Your task to perform on an android device: Do I have any events tomorrow? Image 0: 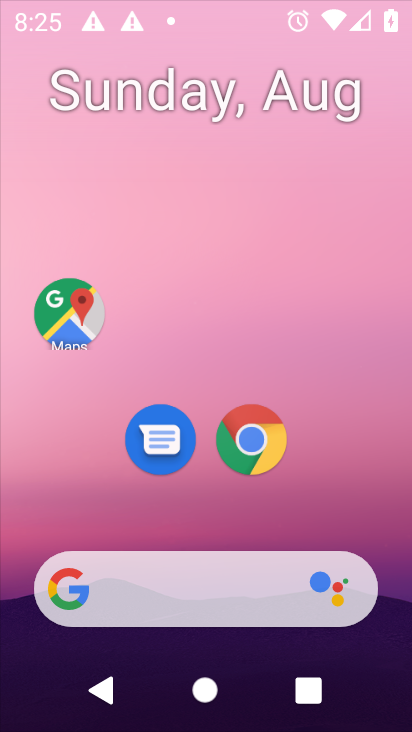
Step 0: press home button
Your task to perform on an android device: Do I have any events tomorrow? Image 1: 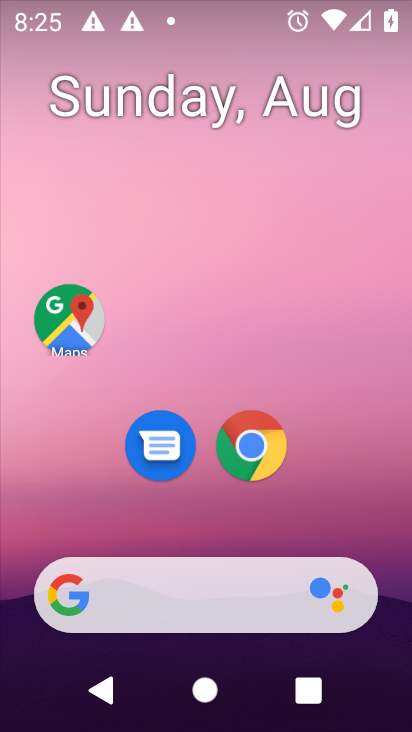
Step 1: drag from (205, 537) to (209, 113)
Your task to perform on an android device: Do I have any events tomorrow? Image 2: 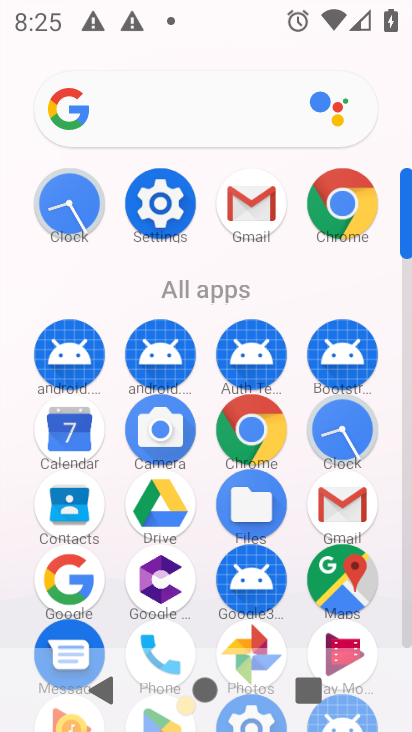
Step 2: click (67, 427)
Your task to perform on an android device: Do I have any events tomorrow? Image 3: 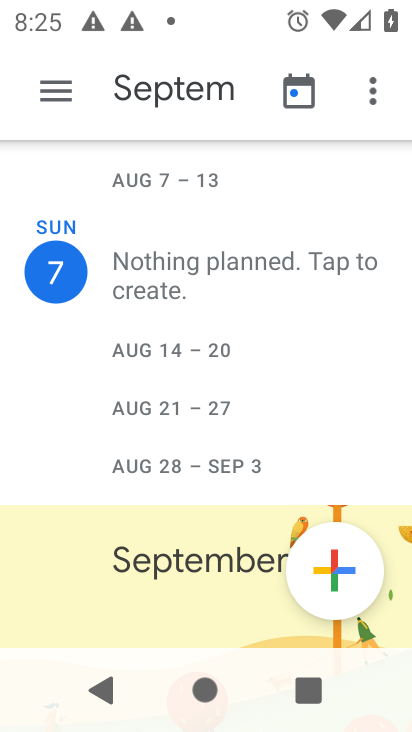
Step 3: click (50, 88)
Your task to perform on an android device: Do I have any events tomorrow? Image 4: 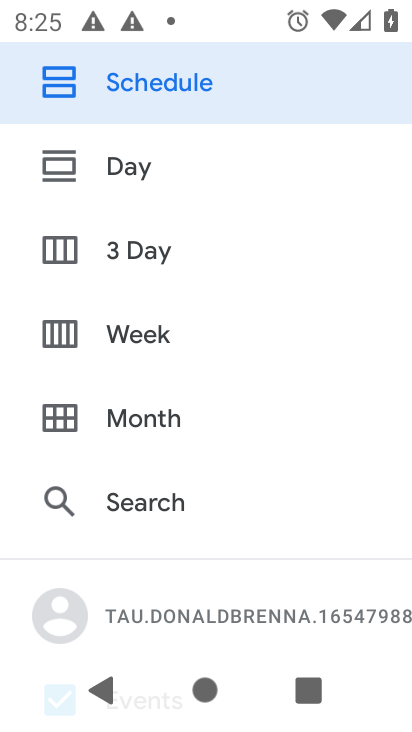
Step 4: click (91, 175)
Your task to perform on an android device: Do I have any events tomorrow? Image 5: 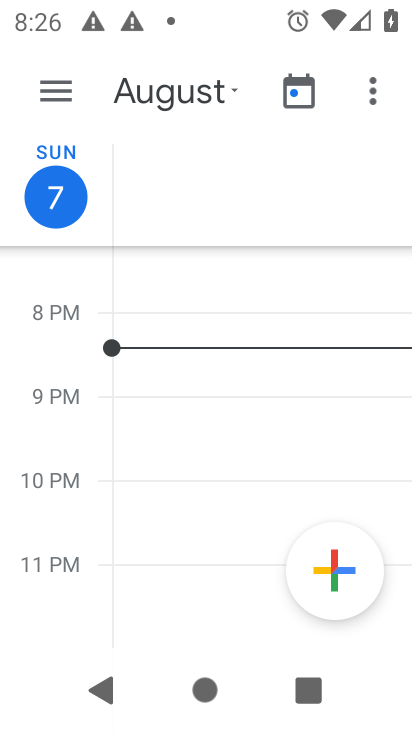
Step 5: click (59, 89)
Your task to perform on an android device: Do I have any events tomorrow? Image 6: 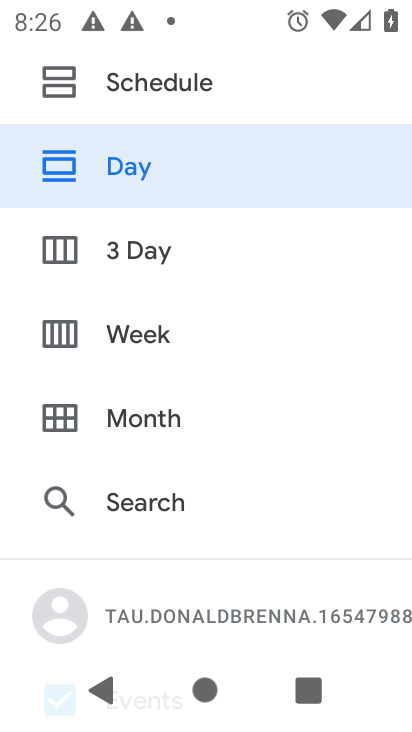
Step 6: click (120, 162)
Your task to perform on an android device: Do I have any events tomorrow? Image 7: 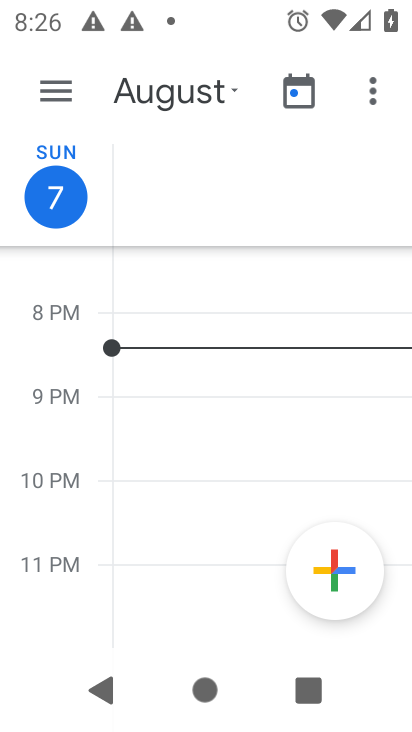
Step 7: click (53, 95)
Your task to perform on an android device: Do I have any events tomorrow? Image 8: 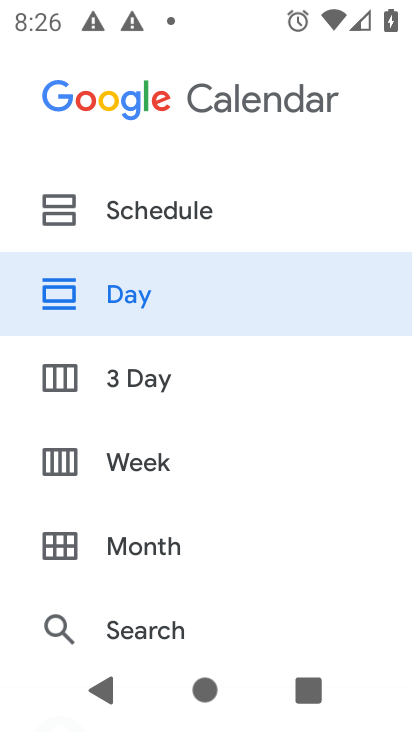
Step 8: drag from (84, 554) to (105, 150)
Your task to perform on an android device: Do I have any events tomorrow? Image 9: 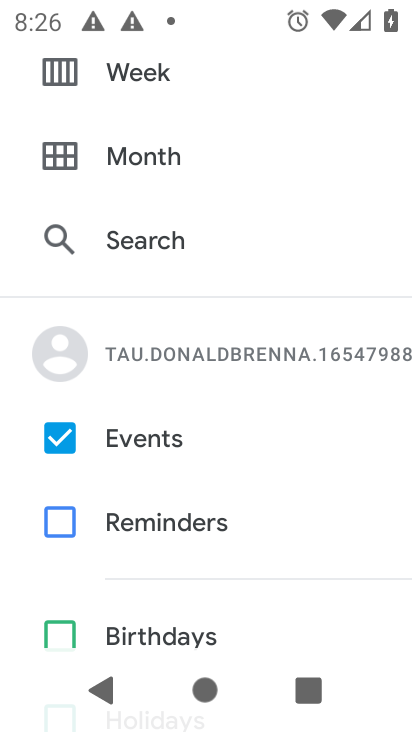
Step 9: drag from (129, 173) to (156, 649)
Your task to perform on an android device: Do I have any events tomorrow? Image 10: 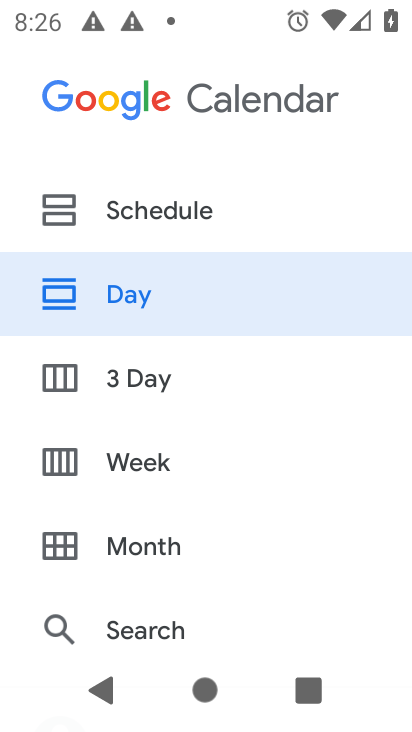
Step 10: click (110, 216)
Your task to perform on an android device: Do I have any events tomorrow? Image 11: 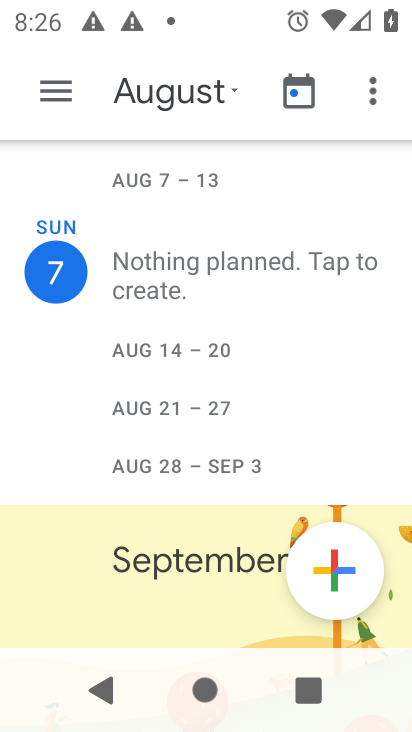
Step 11: click (227, 87)
Your task to perform on an android device: Do I have any events tomorrow? Image 12: 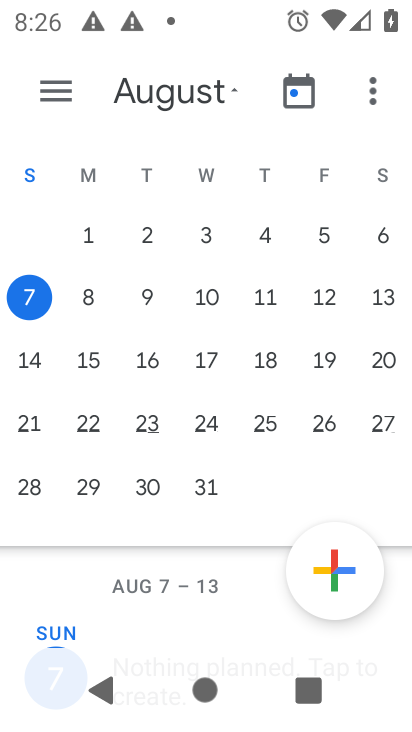
Step 12: click (93, 301)
Your task to perform on an android device: Do I have any events tomorrow? Image 13: 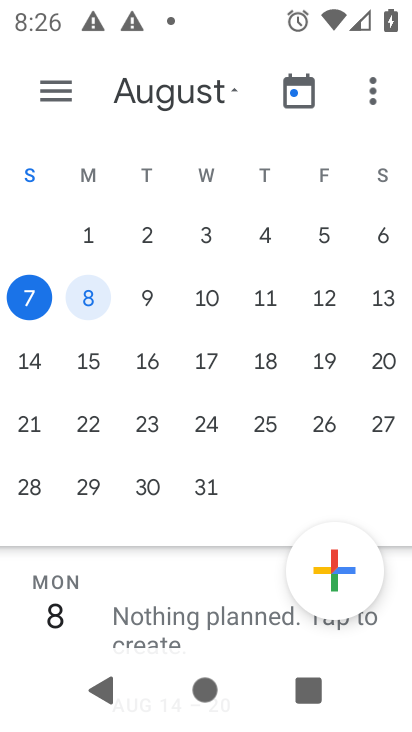
Step 13: click (211, 96)
Your task to perform on an android device: Do I have any events tomorrow? Image 14: 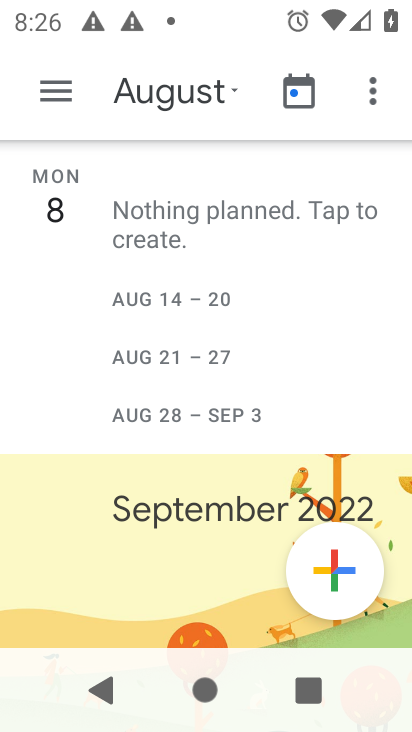
Step 14: click (82, 212)
Your task to perform on an android device: Do I have any events tomorrow? Image 15: 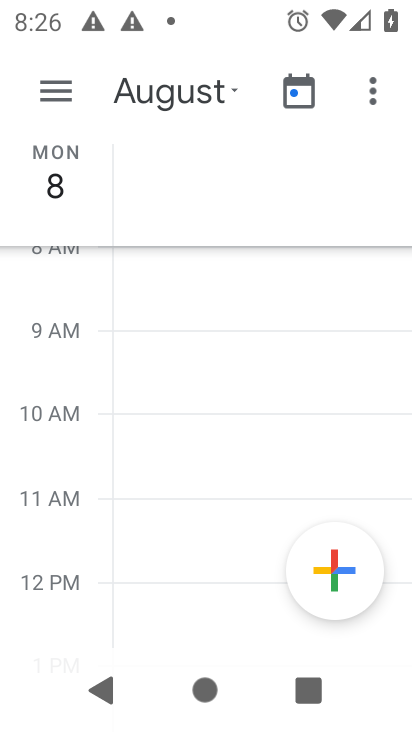
Step 15: task complete